Your task to perform on an android device: Open calendar and show me the second week of next month Image 0: 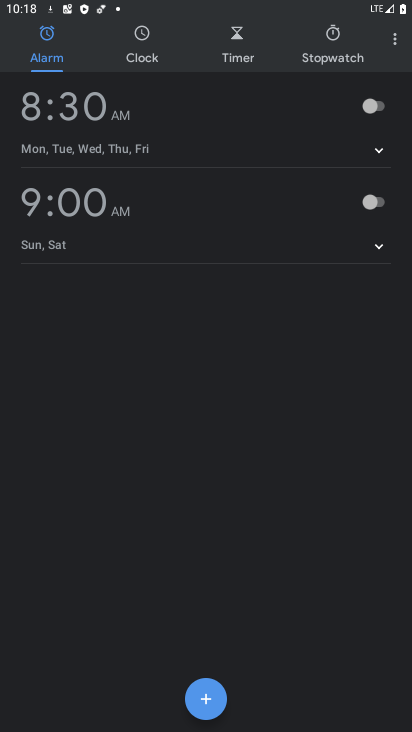
Step 0: press home button
Your task to perform on an android device: Open calendar and show me the second week of next month Image 1: 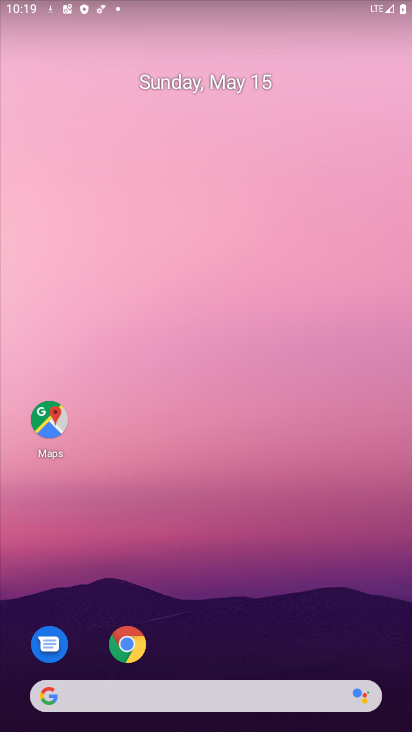
Step 1: drag from (301, 715) to (316, 215)
Your task to perform on an android device: Open calendar and show me the second week of next month Image 2: 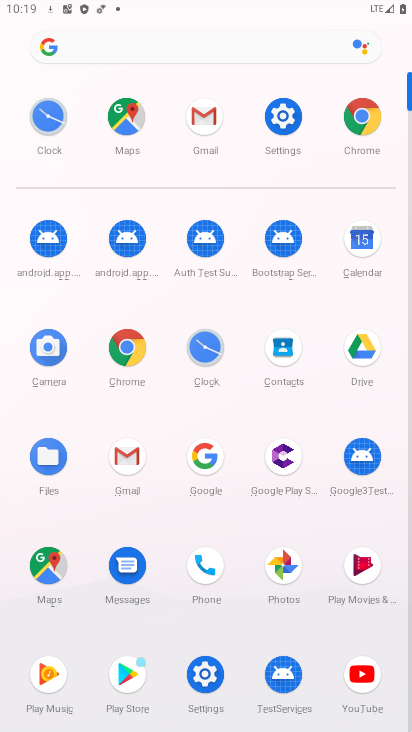
Step 2: click (358, 246)
Your task to perform on an android device: Open calendar and show me the second week of next month Image 3: 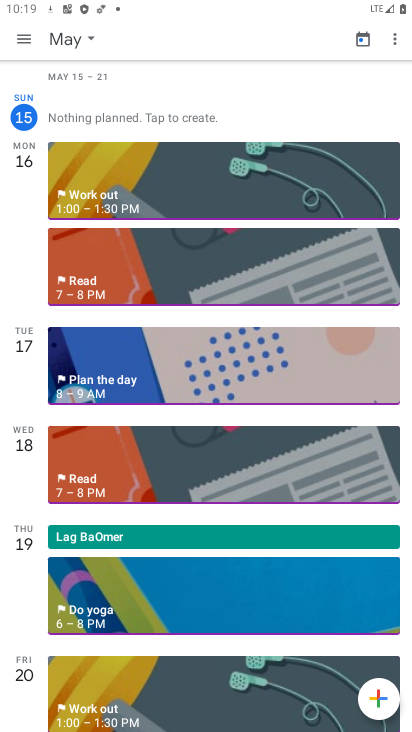
Step 3: click (24, 45)
Your task to perform on an android device: Open calendar and show me the second week of next month Image 4: 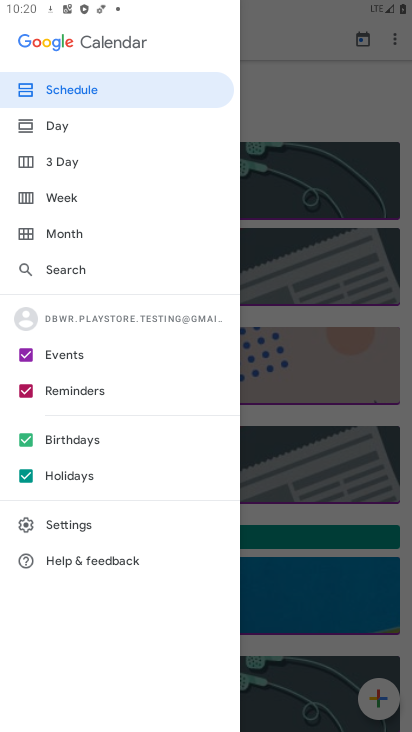
Step 4: click (77, 236)
Your task to perform on an android device: Open calendar and show me the second week of next month Image 5: 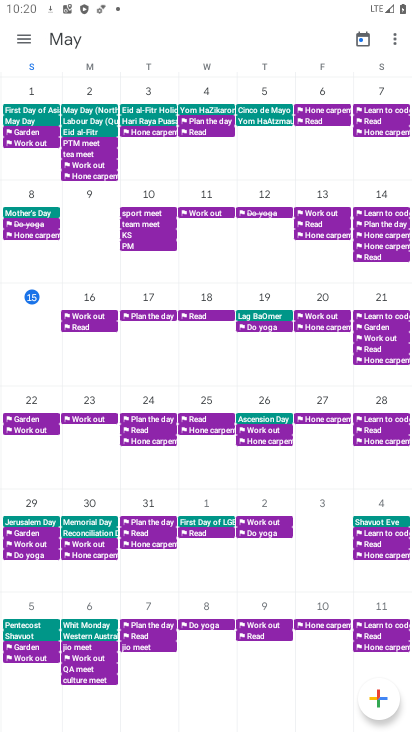
Step 5: drag from (340, 389) to (0, 394)
Your task to perform on an android device: Open calendar and show me the second week of next month Image 6: 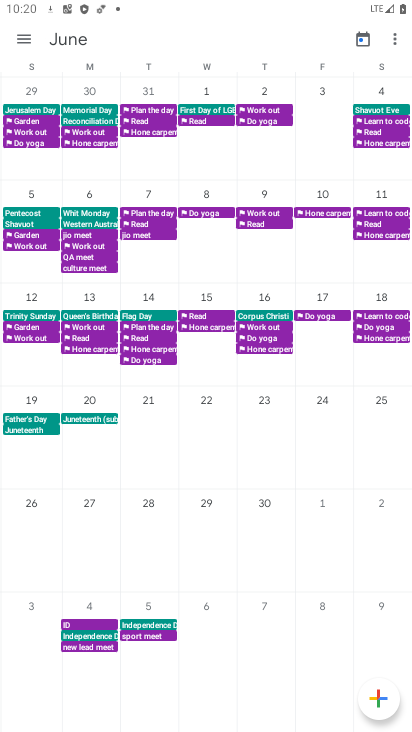
Step 6: click (66, 194)
Your task to perform on an android device: Open calendar and show me the second week of next month Image 7: 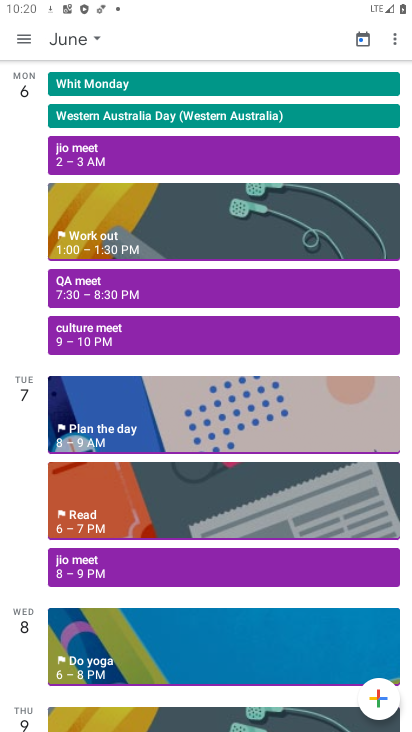
Step 7: task complete